Your task to perform on an android device: Open the map Image 0: 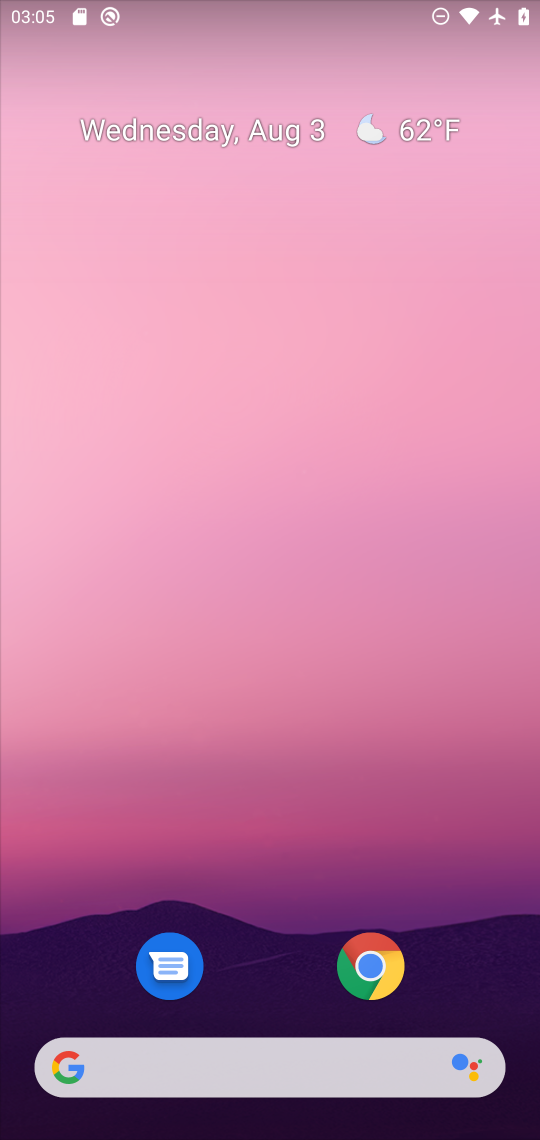
Step 0: drag from (267, 951) to (314, 275)
Your task to perform on an android device: Open the map Image 1: 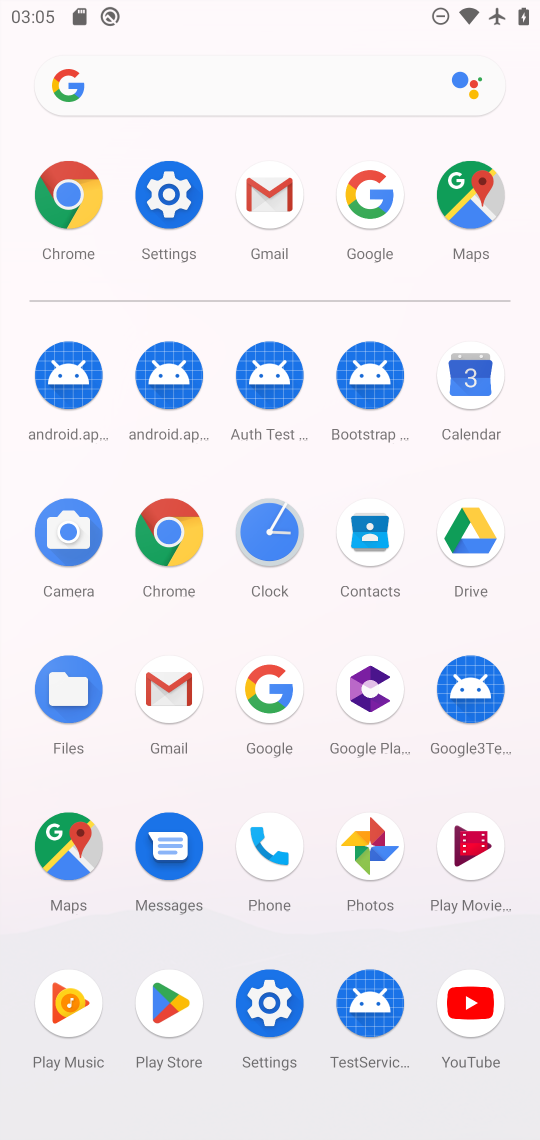
Step 1: click (477, 222)
Your task to perform on an android device: Open the map Image 2: 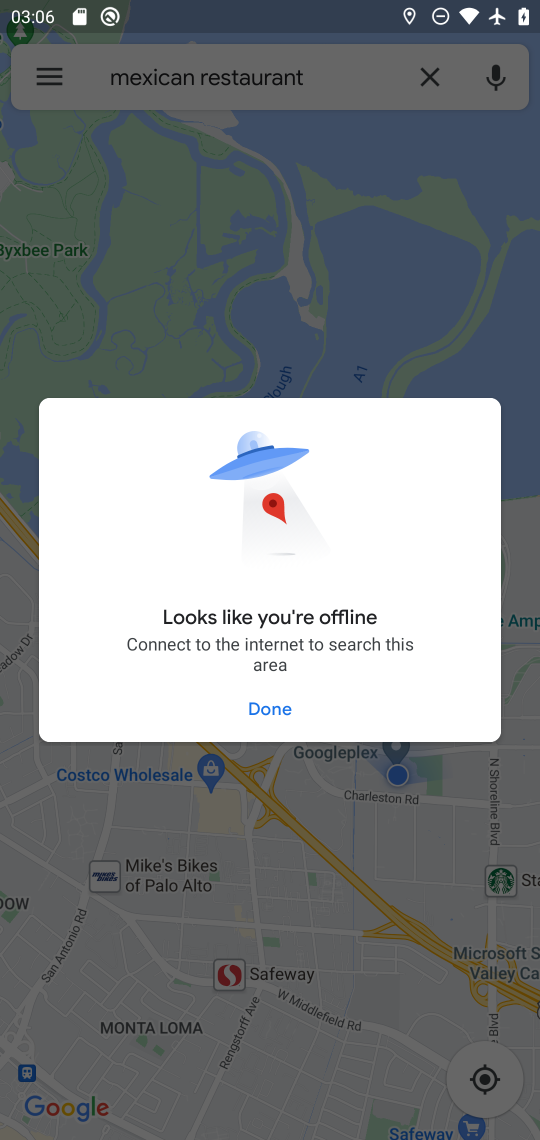
Step 2: task complete